Your task to perform on an android device: snooze an email in the gmail app Image 0: 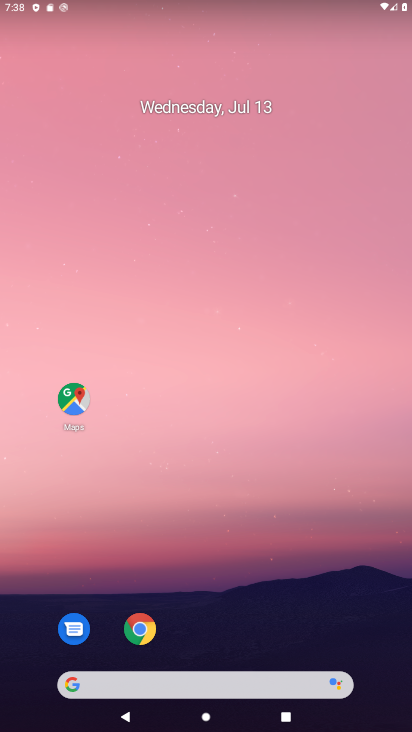
Step 0: drag from (278, 647) to (263, 108)
Your task to perform on an android device: snooze an email in the gmail app Image 1: 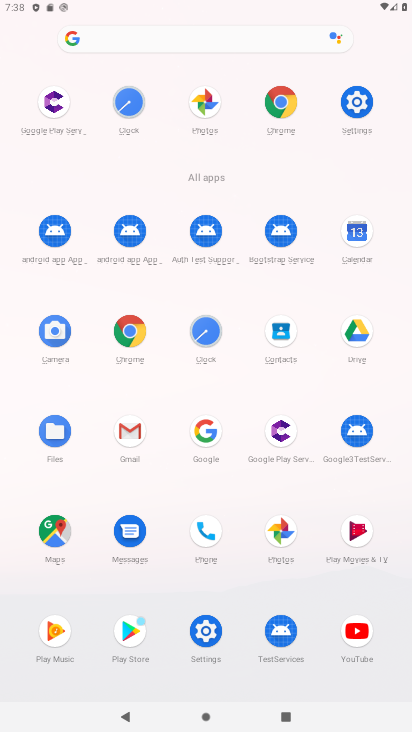
Step 1: click (125, 438)
Your task to perform on an android device: snooze an email in the gmail app Image 2: 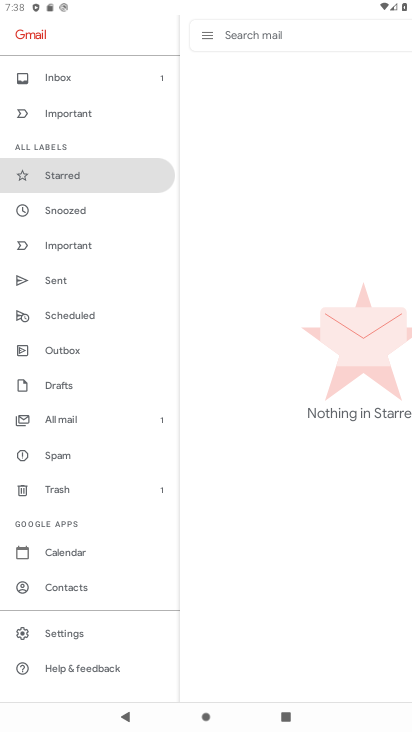
Step 2: click (88, 210)
Your task to perform on an android device: snooze an email in the gmail app Image 3: 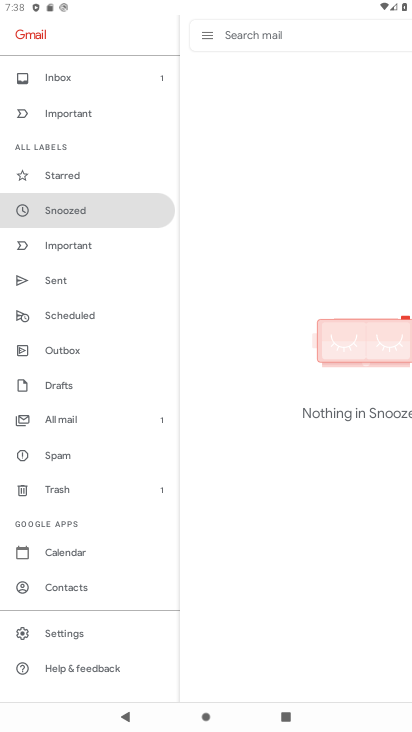
Step 3: task complete